Your task to perform on an android device: turn on showing notifications on the lock screen Image 0: 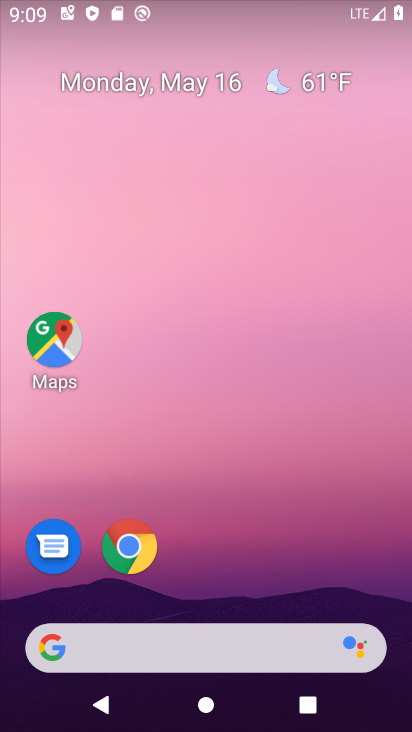
Step 0: drag from (359, 552) to (285, 152)
Your task to perform on an android device: turn on showing notifications on the lock screen Image 1: 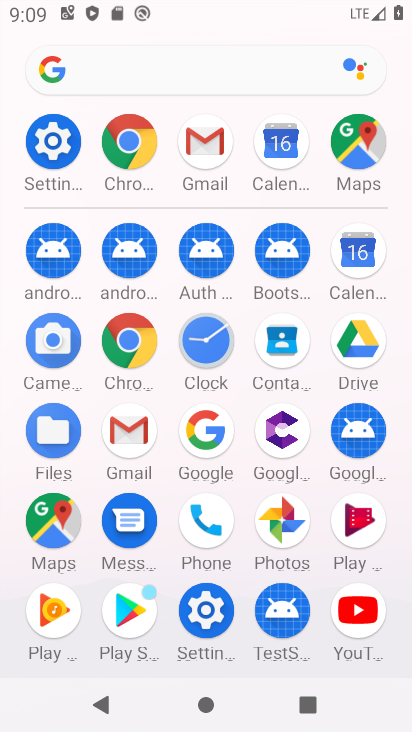
Step 1: click (59, 160)
Your task to perform on an android device: turn on showing notifications on the lock screen Image 2: 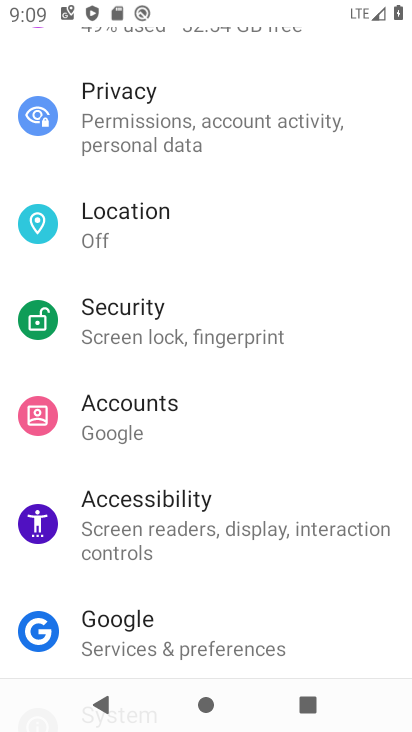
Step 2: drag from (182, 638) to (143, 304)
Your task to perform on an android device: turn on showing notifications on the lock screen Image 3: 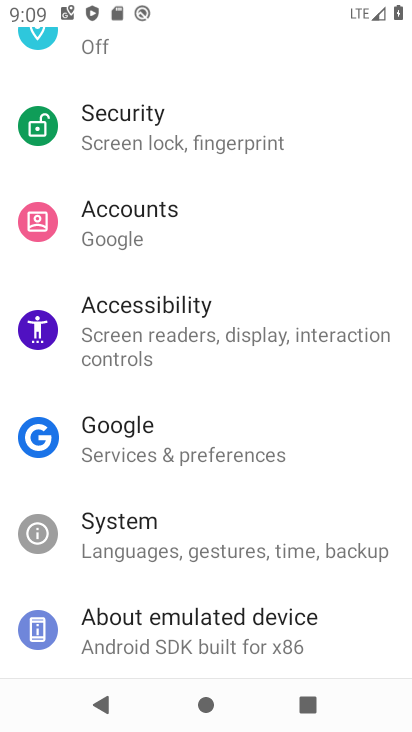
Step 3: drag from (226, 243) to (354, 711)
Your task to perform on an android device: turn on showing notifications on the lock screen Image 4: 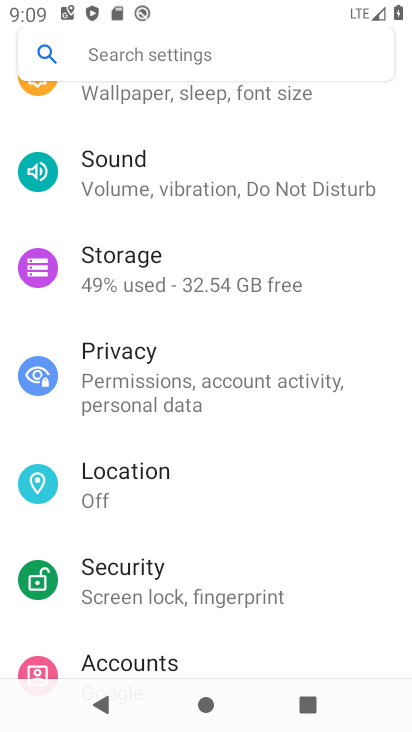
Step 4: drag from (296, 103) to (379, 715)
Your task to perform on an android device: turn on showing notifications on the lock screen Image 5: 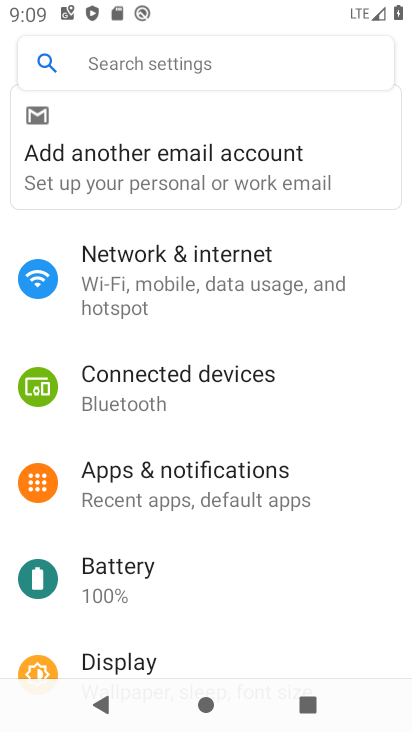
Step 5: click (234, 494)
Your task to perform on an android device: turn on showing notifications on the lock screen Image 6: 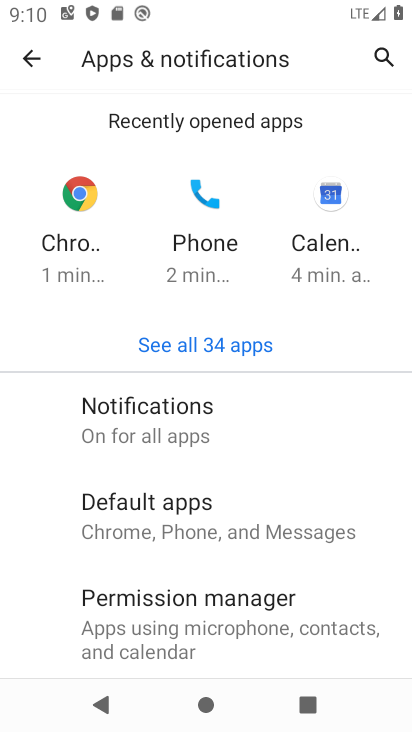
Step 6: click (188, 424)
Your task to perform on an android device: turn on showing notifications on the lock screen Image 7: 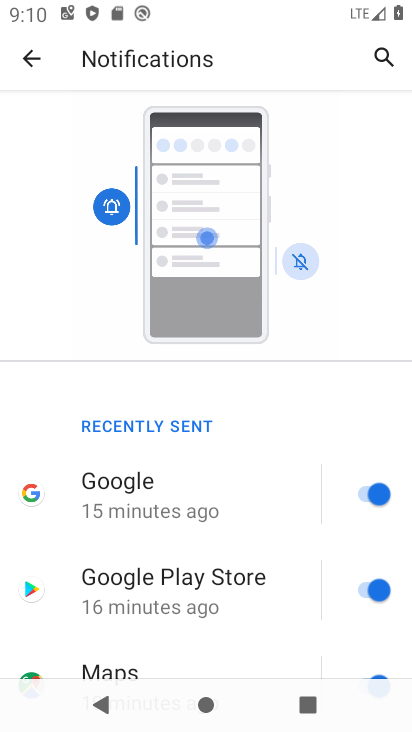
Step 7: drag from (272, 619) to (249, 319)
Your task to perform on an android device: turn on showing notifications on the lock screen Image 8: 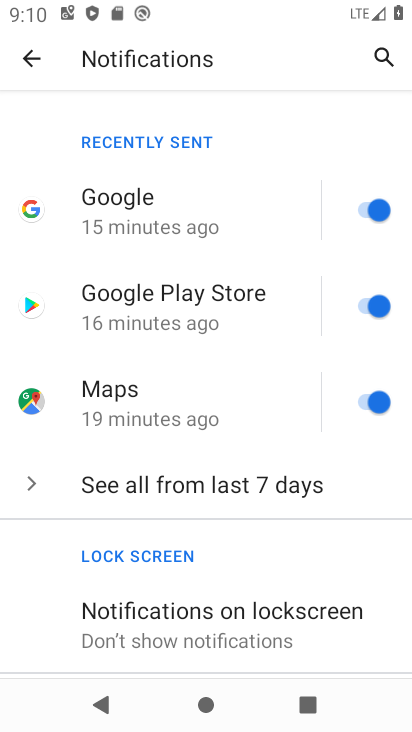
Step 8: drag from (253, 553) to (204, 183)
Your task to perform on an android device: turn on showing notifications on the lock screen Image 9: 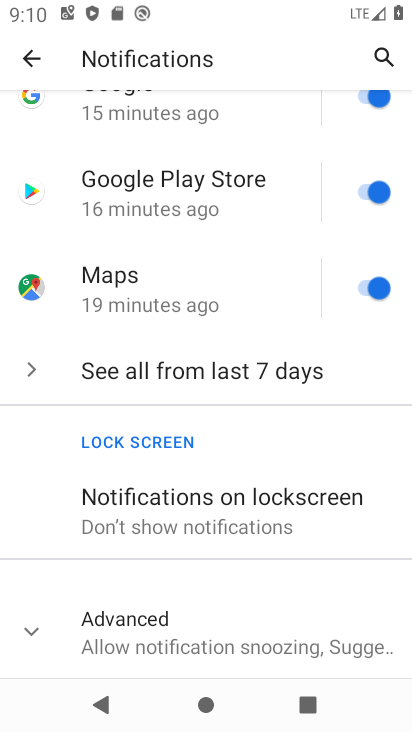
Step 9: click (167, 499)
Your task to perform on an android device: turn on showing notifications on the lock screen Image 10: 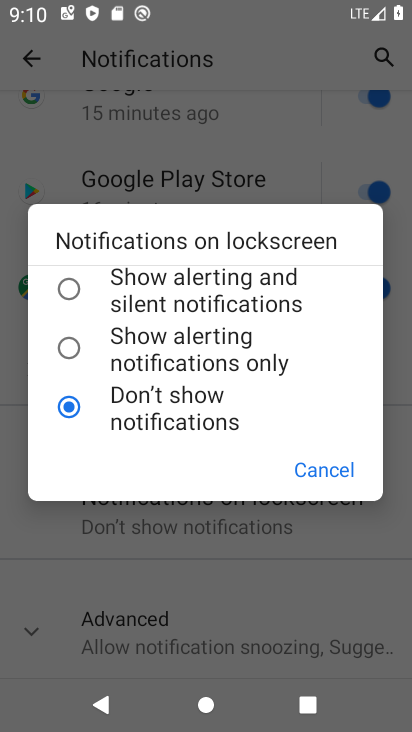
Step 10: click (75, 287)
Your task to perform on an android device: turn on showing notifications on the lock screen Image 11: 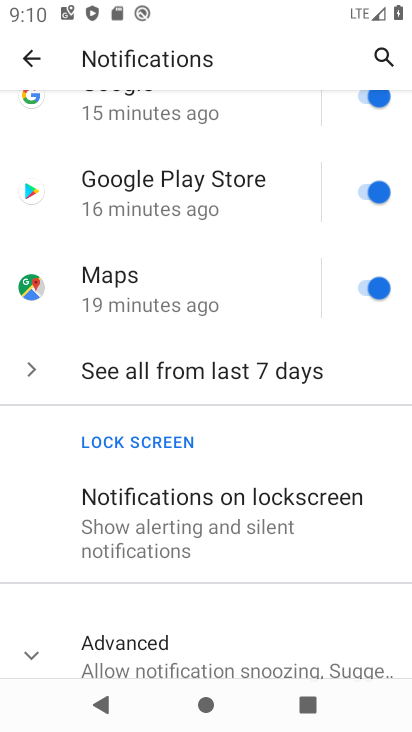
Step 11: task complete